Your task to perform on an android device: Check out the best rated books on Goodreads. Image 0: 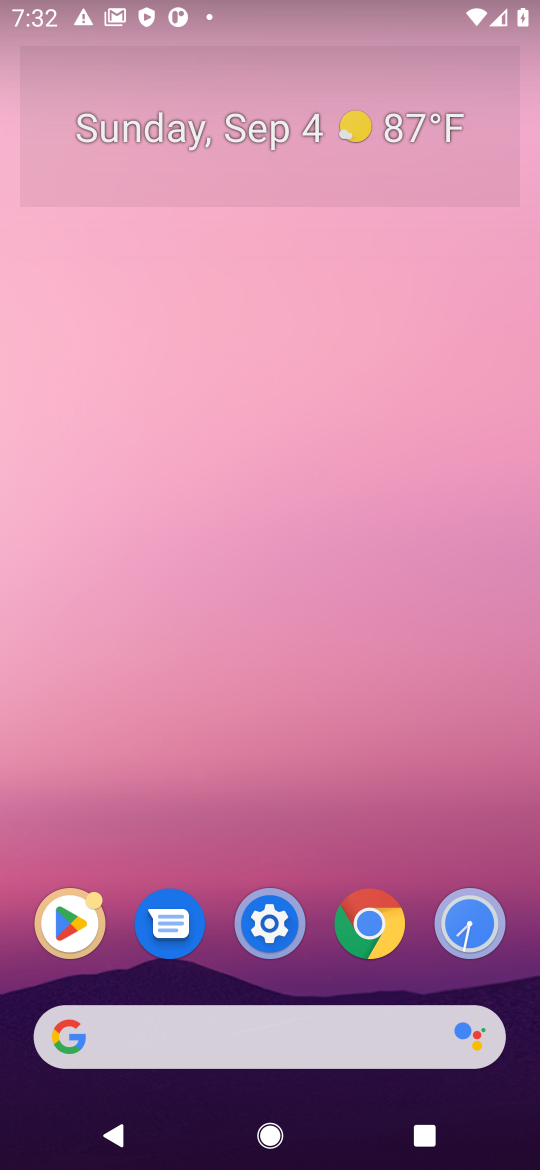
Step 0: press home button
Your task to perform on an android device: Check out the best rated books on Goodreads. Image 1: 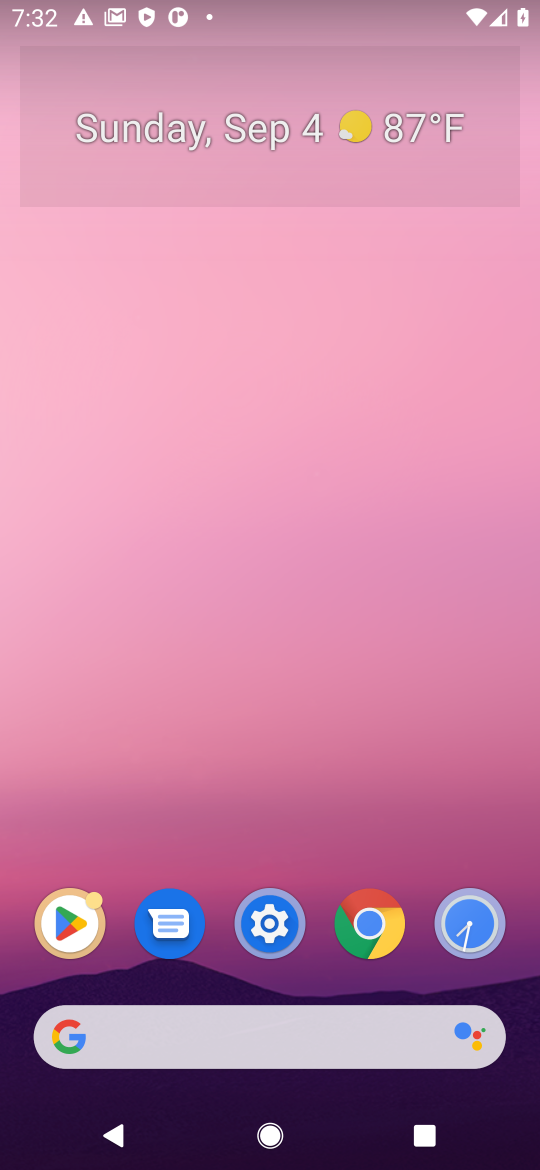
Step 1: click (393, 1033)
Your task to perform on an android device: Check out the best rated books on Goodreads. Image 2: 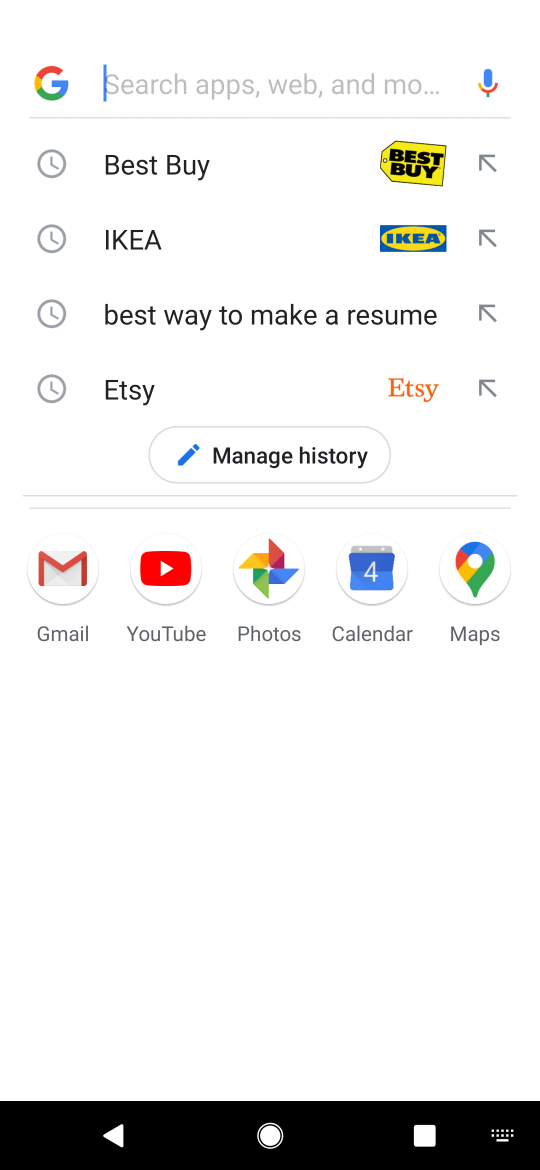
Step 2: press enter
Your task to perform on an android device: Check out the best rated books on Goodreads. Image 3: 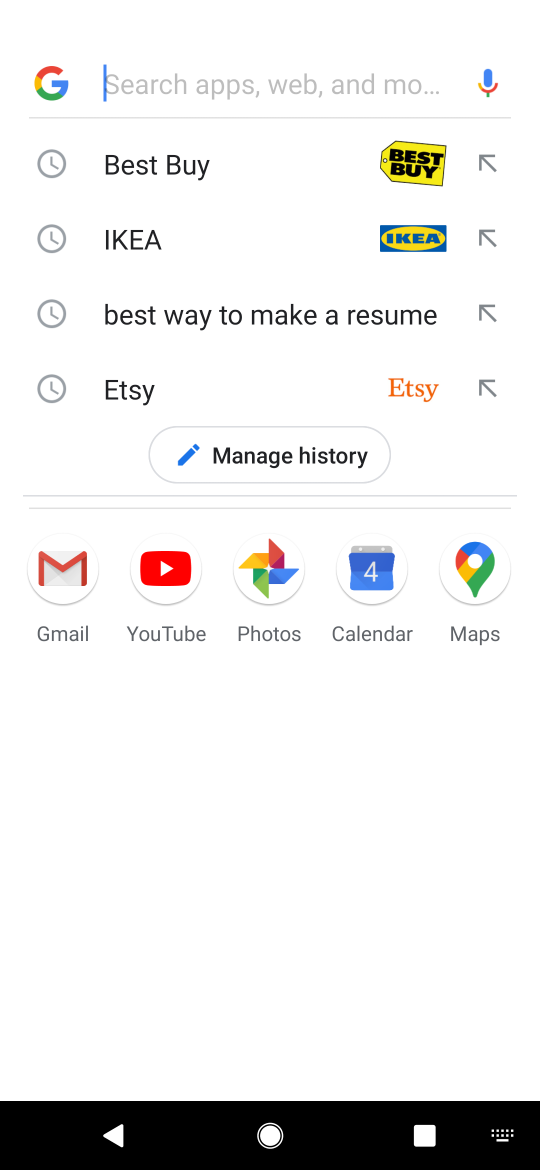
Step 3: type "goodreads"
Your task to perform on an android device: Check out the best rated books on Goodreads. Image 4: 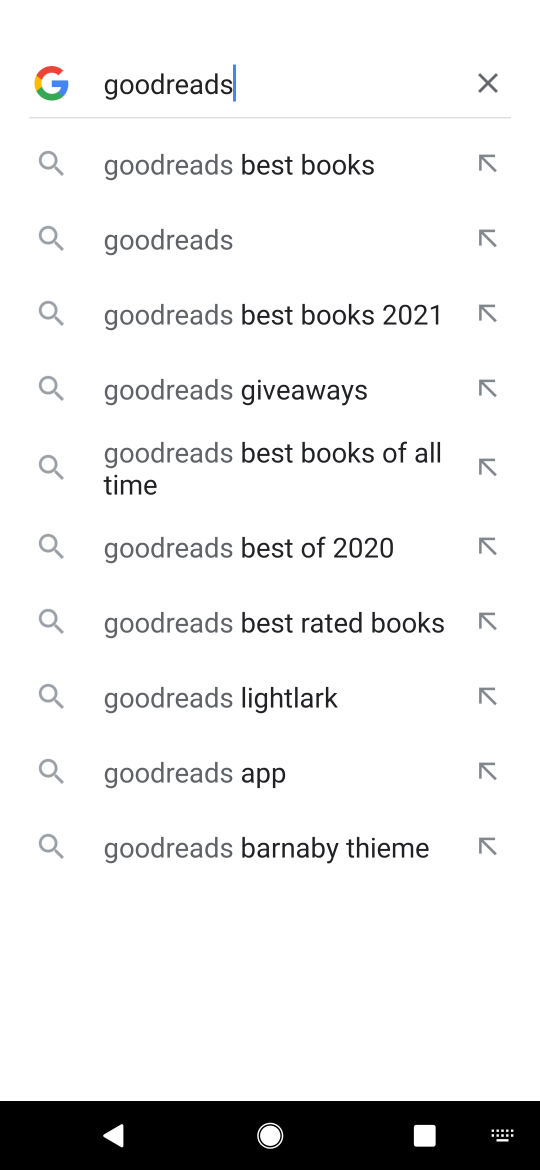
Step 4: click (223, 245)
Your task to perform on an android device: Check out the best rated books on Goodreads. Image 5: 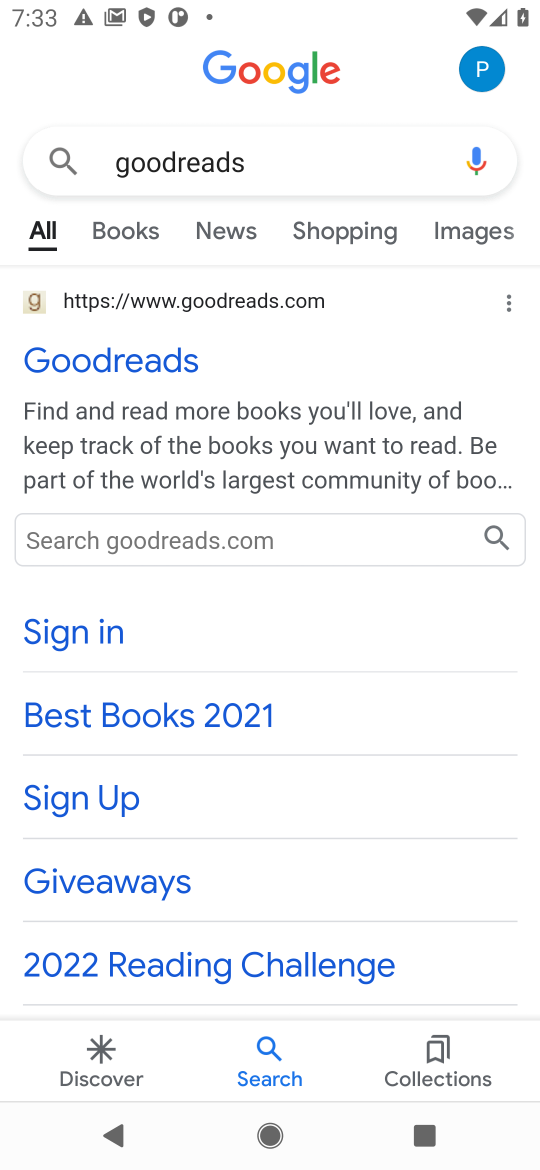
Step 5: click (148, 364)
Your task to perform on an android device: Check out the best rated books on Goodreads. Image 6: 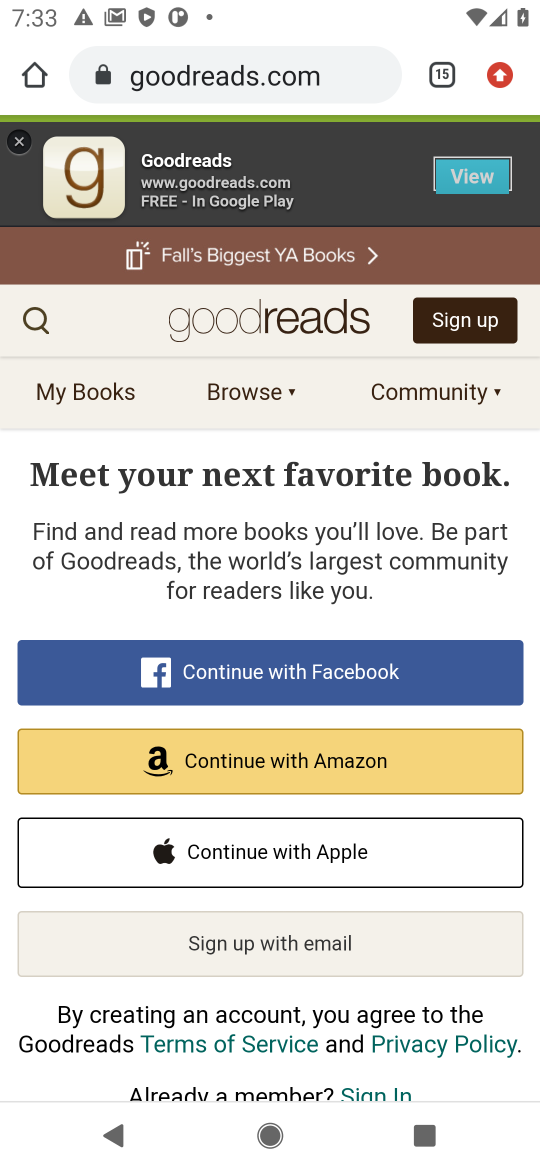
Step 6: click (23, 316)
Your task to perform on an android device: Check out the best rated books on Goodreads. Image 7: 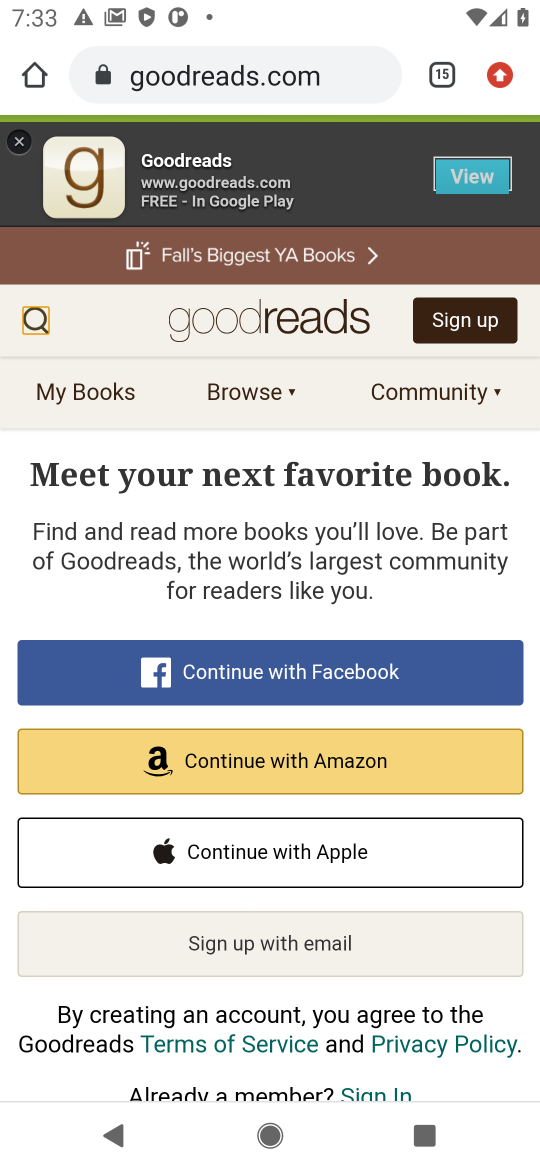
Step 7: click (63, 325)
Your task to perform on an android device: Check out the best rated books on Goodreads. Image 8: 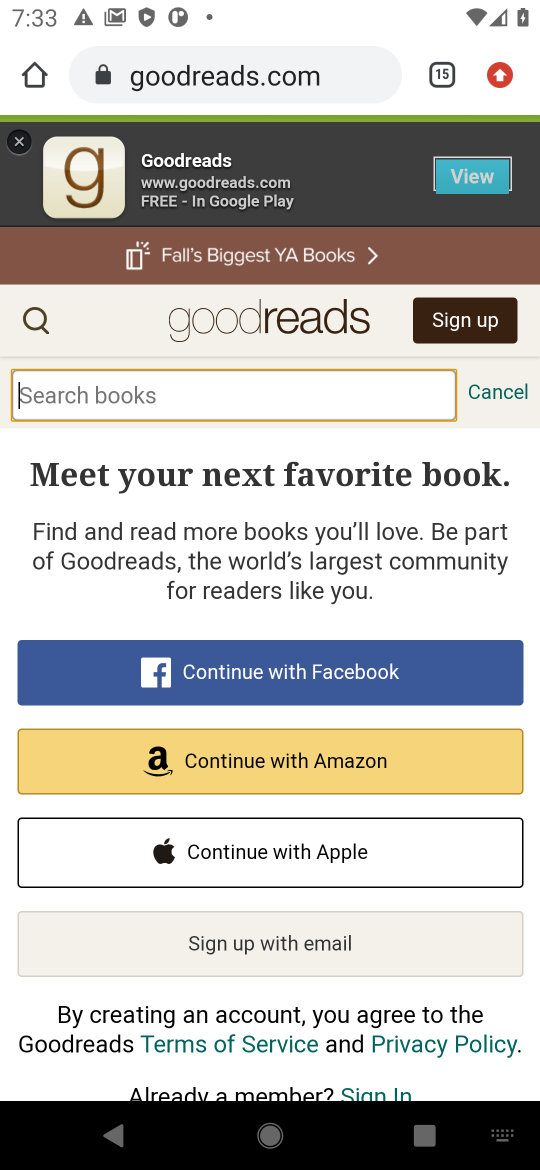
Step 8: press enter
Your task to perform on an android device: Check out the best rated books on Goodreads. Image 9: 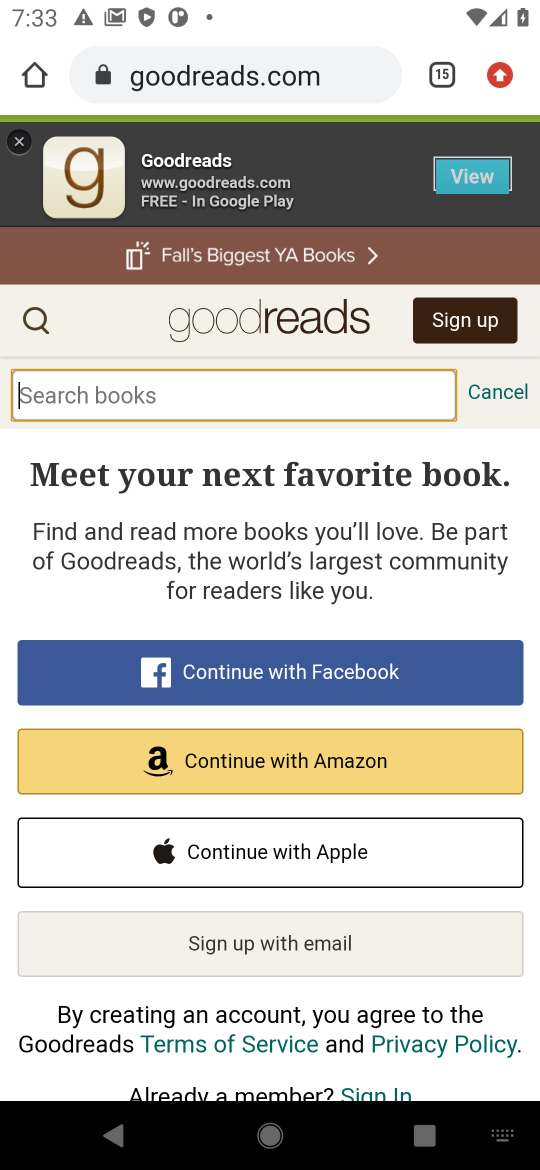
Step 9: type "best rated books"
Your task to perform on an android device: Check out the best rated books on Goodreads. Image 10: 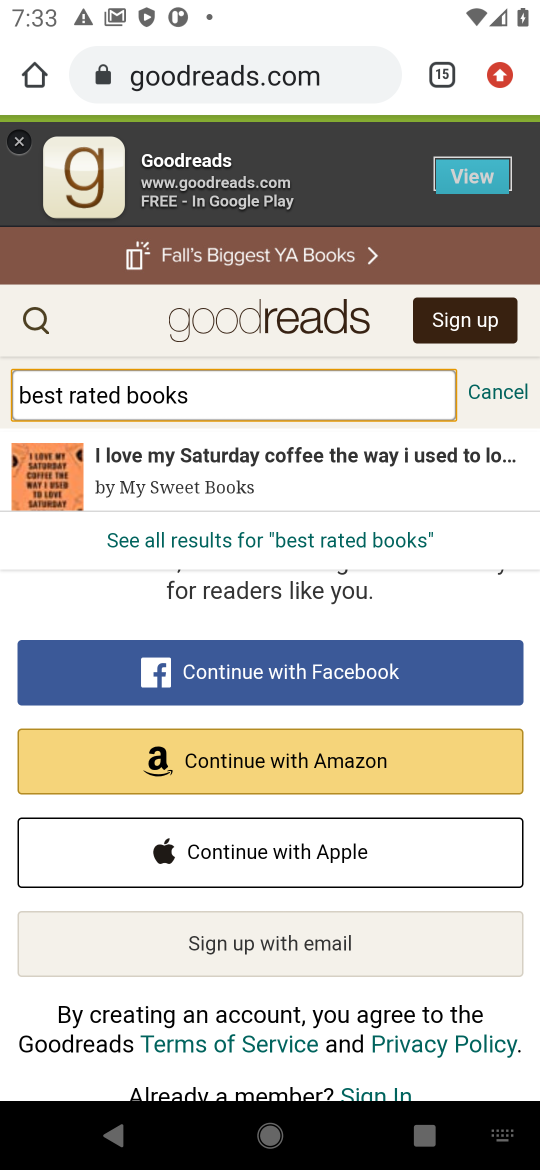
Step 10: task complete